Your task to perform on an android device: turn on airplane mode Image 0: 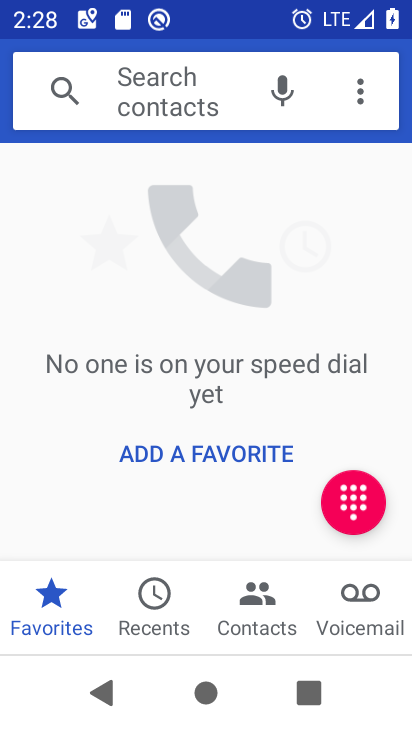
Step 0: press home button
Your task to perform on an android device: turn on airplane mode Image 1: 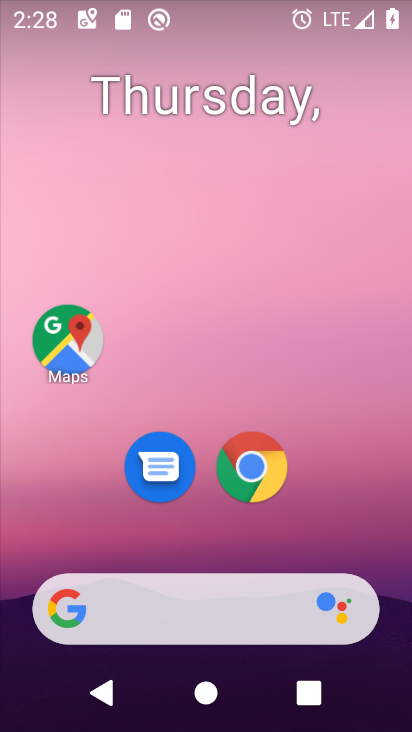
Step 1: drag from (190, 546) to (223, 0)
Your task to perform on an android device: turn on airplane mode Image 2: 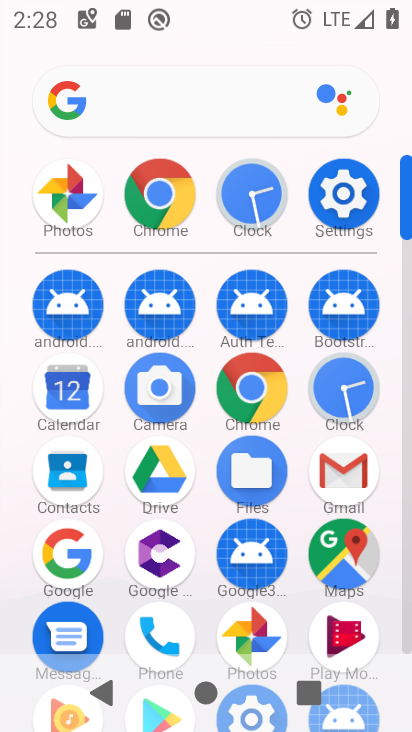
Step 2: click (338, 197)
Your task to perform on an android device: turn on airplane mode Image 3: 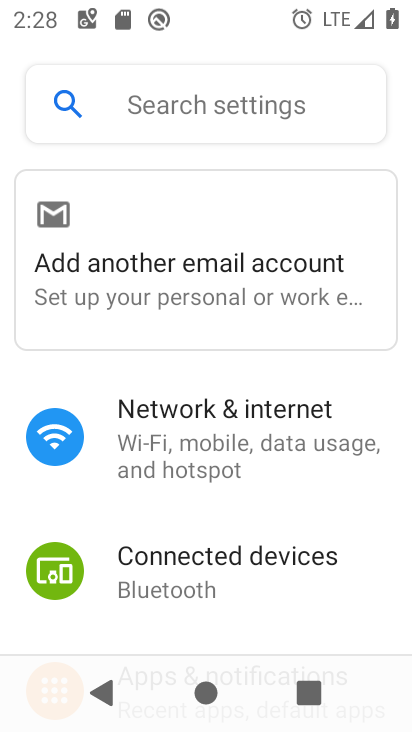
Step 3: click (187, 478)
Your task to perform on an android device: turn on airplane mode Image 4: 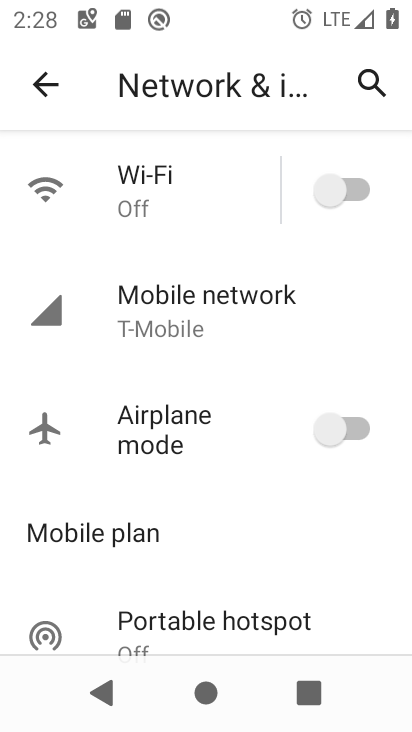
Step 4: click (358, 437)
Your task to perform on an android device: turn on airplane mode Image 5: 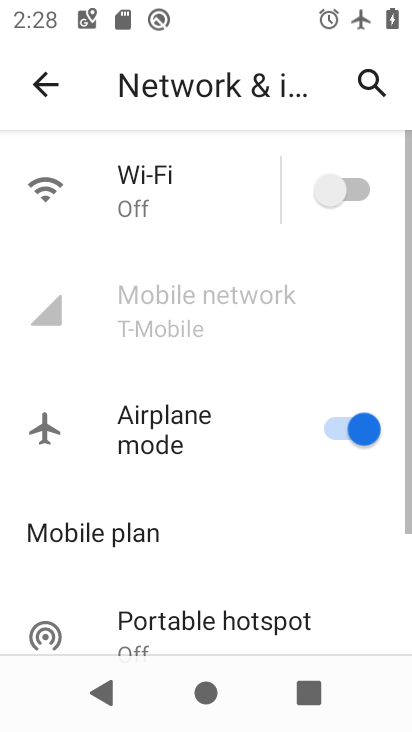
Step 5: task complete